Your task to perform on an android device: Search for seafood restaurants on Google Maps Image 0: 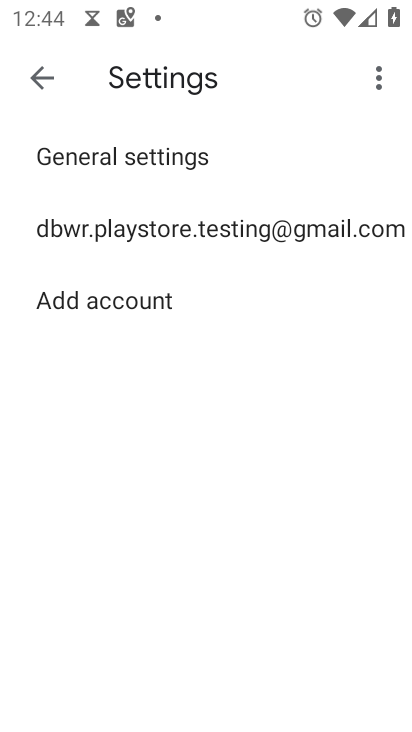
Step 0: press home button
Your task to perform on an android device: Search for seafood restaurants on Google Maps Image 1: 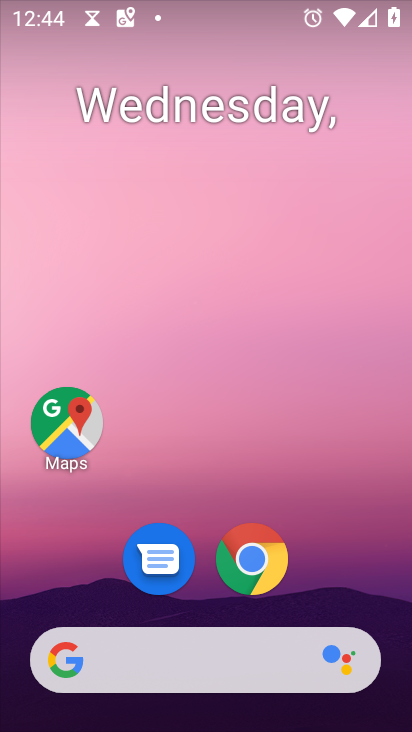
Step 1: drag from (361, 565) to (329, 12)
Your task to perform on an android device: Search for seafood restaurants on Google Maps Image 2: 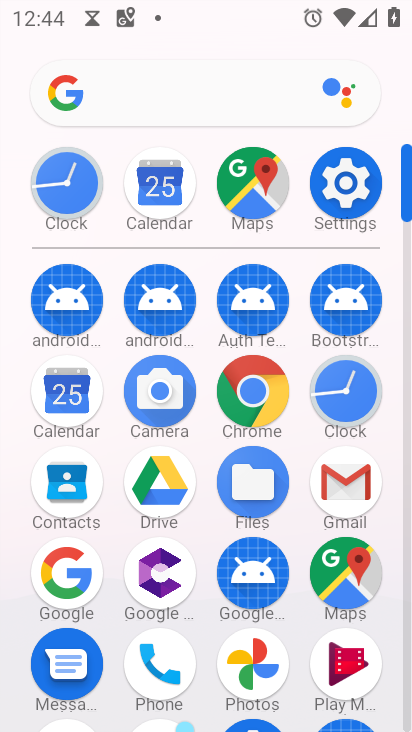
Step 2: click (55, 409)
Your task to perform on an android device: Search for seafood restaurants on Google Maps Image 3: 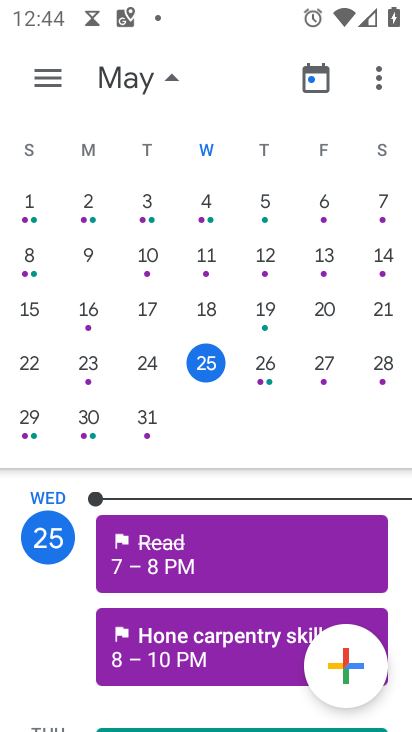
Step 3: press home button
Your task to perform on an android device: Search for seafood restaurants on Google Maps Image 4: 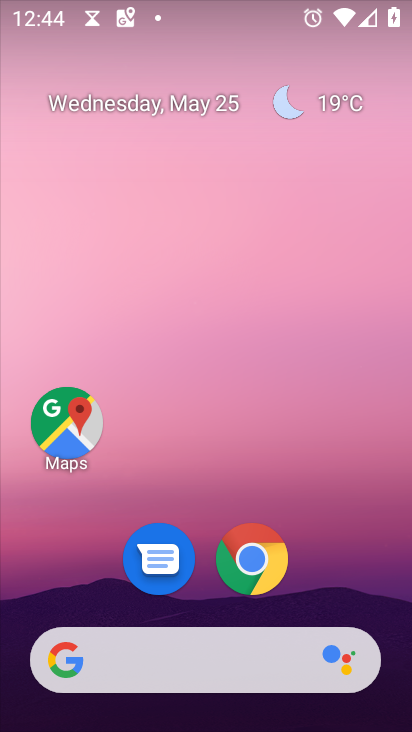
Step 4: drag from (352, 562) to (281, 48)
Your task to perform on an android device: Search for seafood restaurants on Google Maps Image 5: 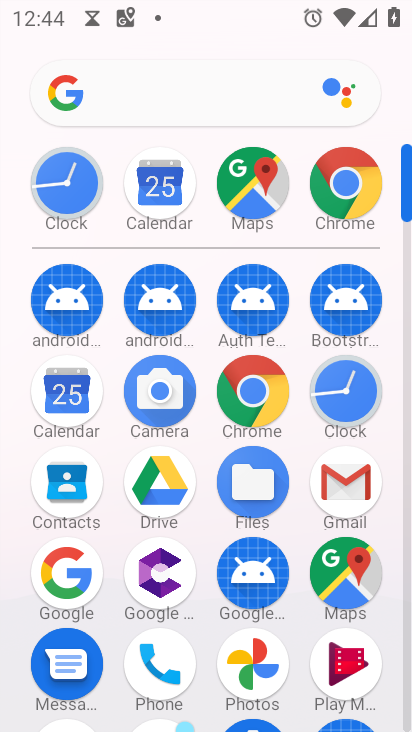
Step 5: click (253, 192)
Your task to perform on an android device: Search for seafood restaurants on Google Maps Image 6: 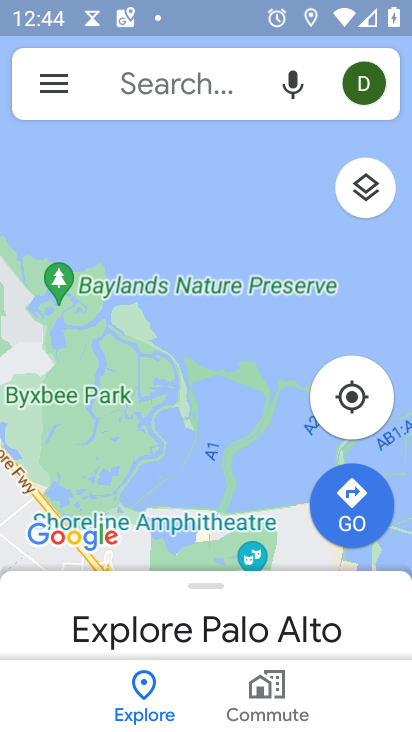
Step 6: click (186, 109)
Your task to perform on an android device: Search for seafood restaurants on Google Maps Image 7: 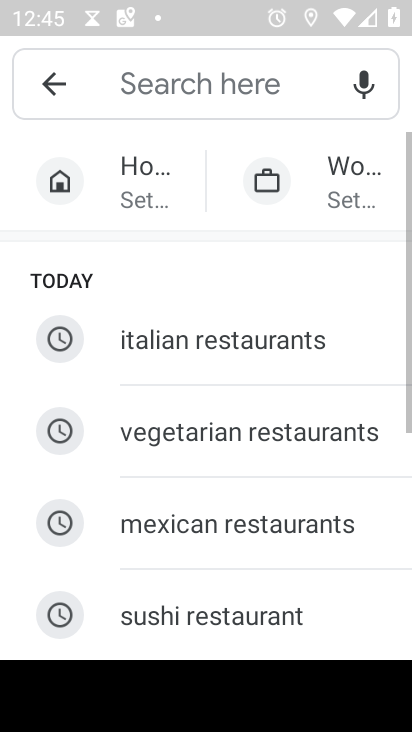
Step 7: drag from (265, 549) to (339, 161)
Your task to perform on an android device: Search for seafood restaurants on Google Maps Image 8: 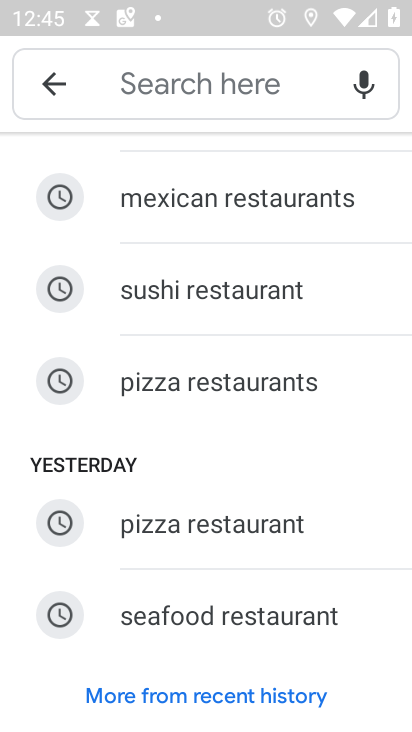
Step 8: drag from (244, 603) to (262, 220)
Your task to perform on an android device: Search for seafood restaurants on Google Maps Image 9: 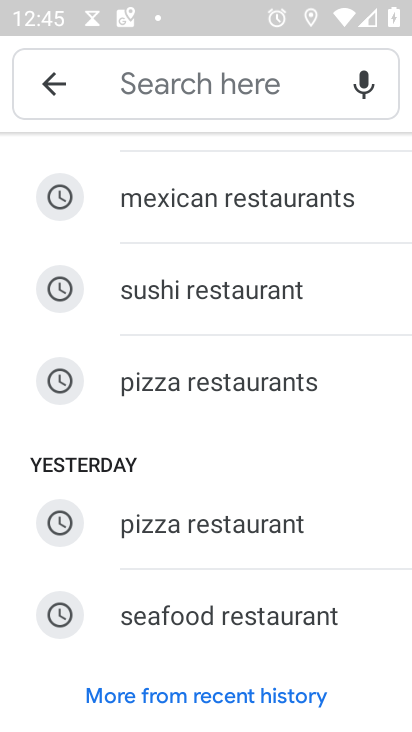
Step 9: click (241, 614)
Your task to perform on an android device: Search for seafood restaurants on Google Maps Image 10: 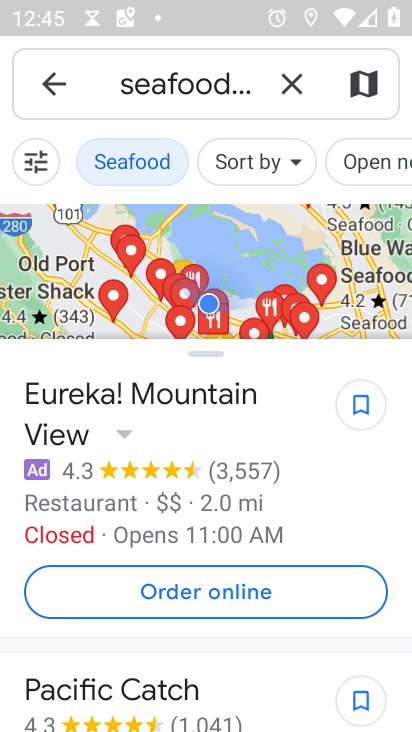
Step 10: task complete